Your task to perform on an android device: Open Google Image 0: 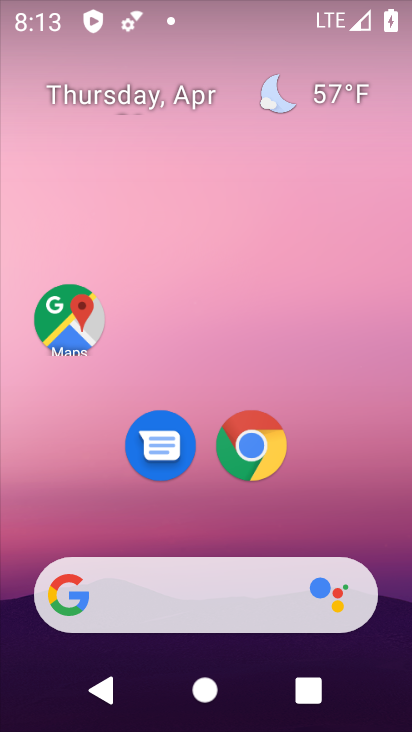
Step 0: drag from (392, 538) to (379, 1)
Your task to perform on an android device: Open Google Image 1: 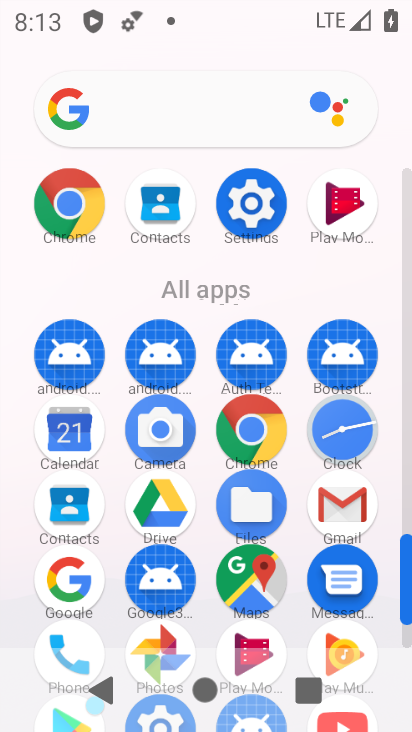
Step 1: click (65, 579)
Your task to perform on an android device: Open Google Image 2: 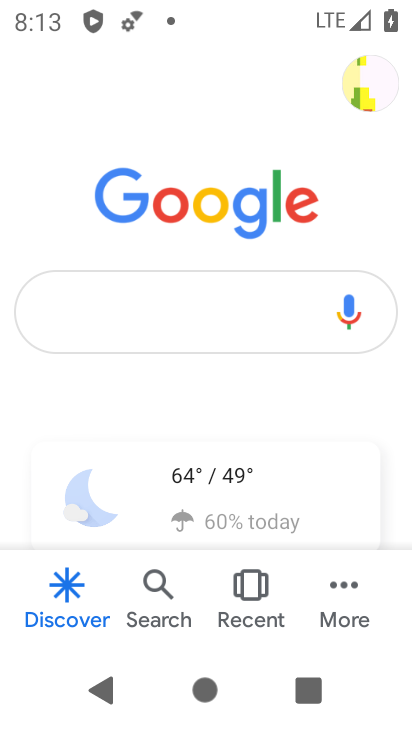
Step 2: task complete